Your task to perform on an android device: check storage Image 0: 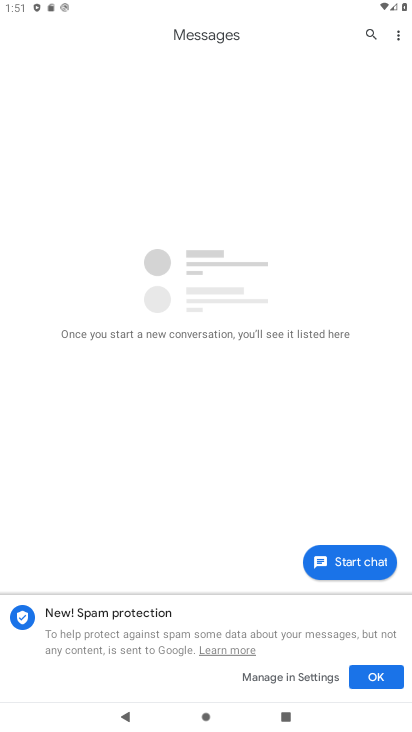
Step 0: press home button
Your task to perform on an android device: check storage Image 1: 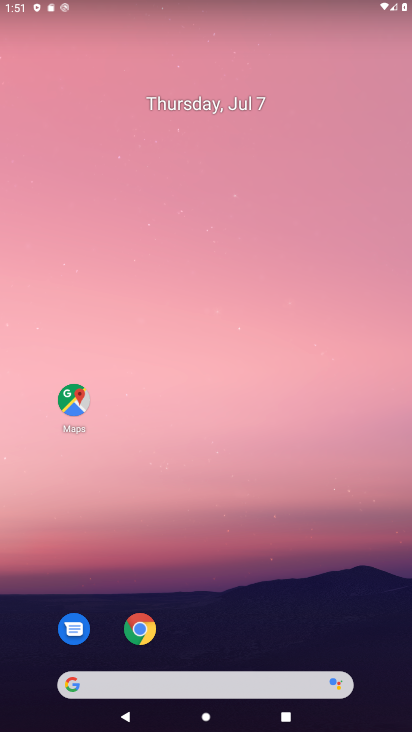
Step 1: drag from (226, 651) to (322, 63)
Your task to perform on an android device: check storage Image 2: 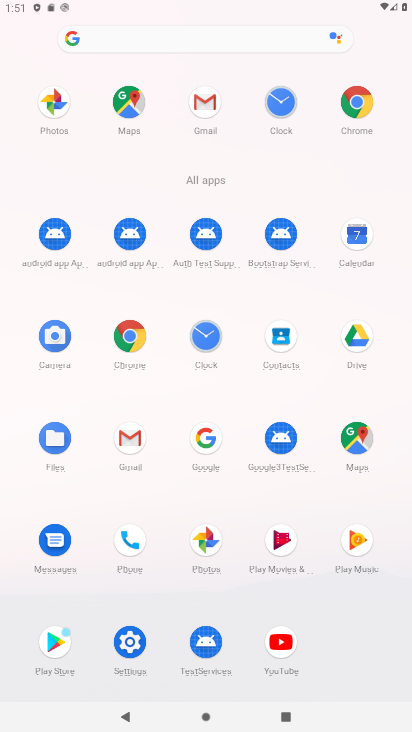
Step 2: click (116, 659)
Your task to perform on an android device: check storage Image 3: 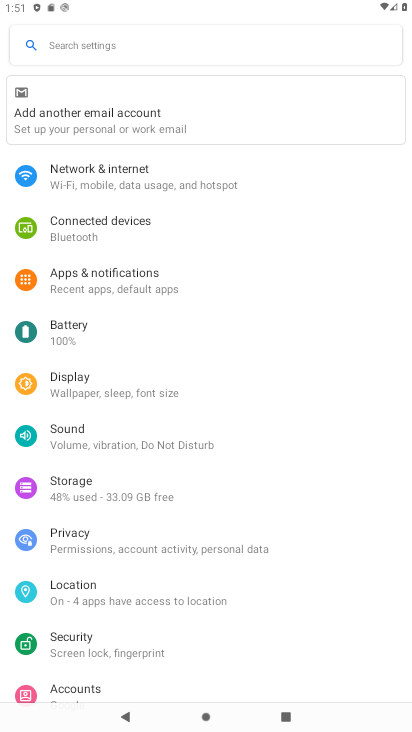
Step 3: click (99, 494)
Your task to perform on an android device: check storage Image 4: 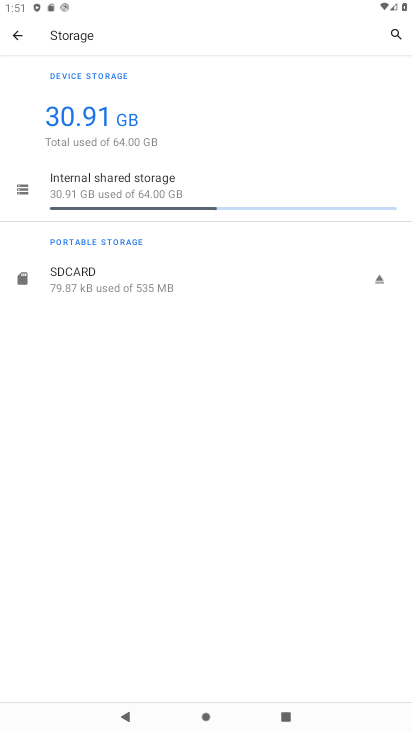
Step 4: task complete